Your task to perform on an android device: turn off data saver in the chrome app Image 0: 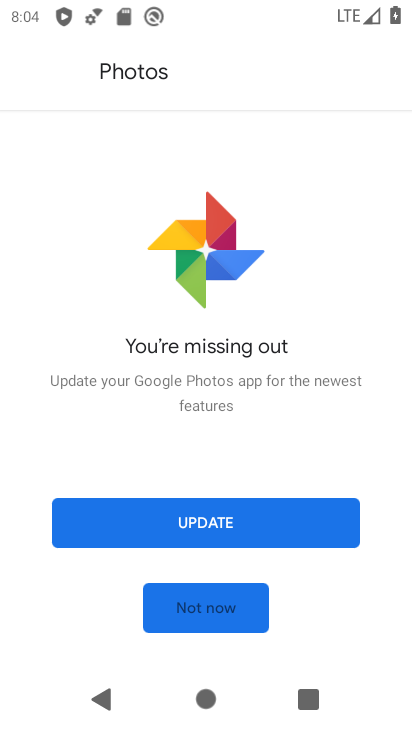
Step 0: press home button
Your task to perform on an android device: turn off data saver in the chrome app Image 1: 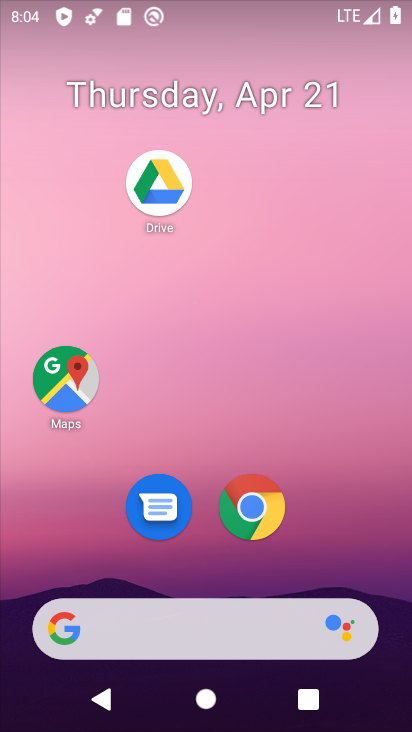
Step 1: drag from (356, 566) to (365, 142)
Your task to perform on an android device: turn off data saver in the chrome app Image 2: 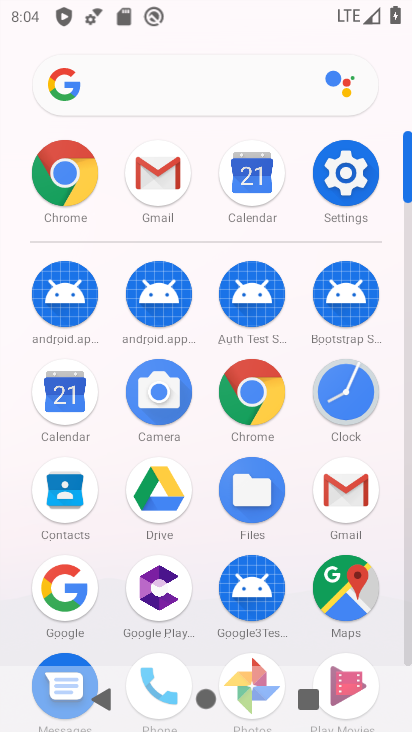
Step 2: click (264, 397)
Your task to perform on an android device: turn off data saver in the chrome app Image 3: 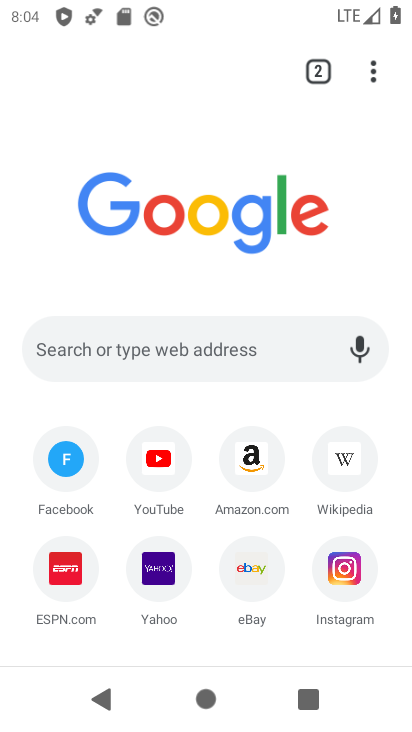
Step 3: click (373, 73)
Your task to perform on an android device: turn off data saver in the chrome app Image 4: 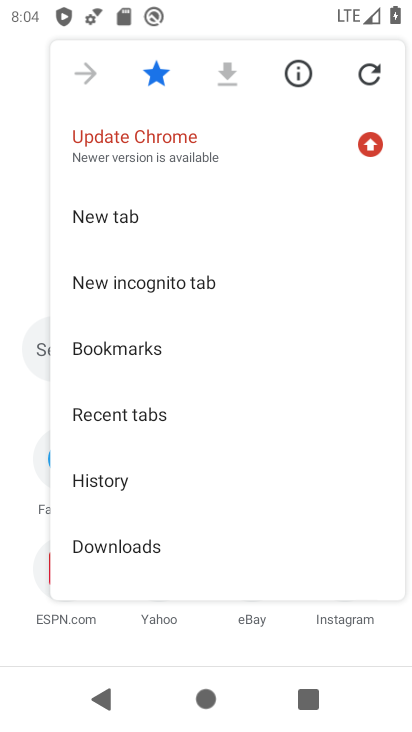
Step 4: drag from (302, 460) to (323, 277)
Your task to perform on an android device: turn off data saver in the chrome app Image 5: 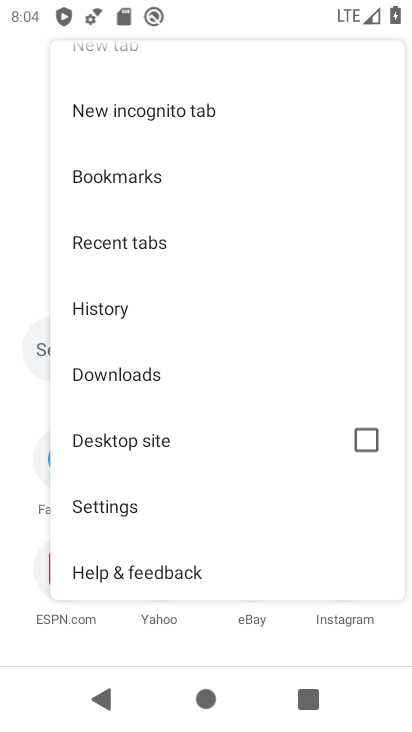
Step 5: drag from (275, 520) to (283, 309)
Your task to perform on an android device: turn off data saver in the chrome app Image 6: 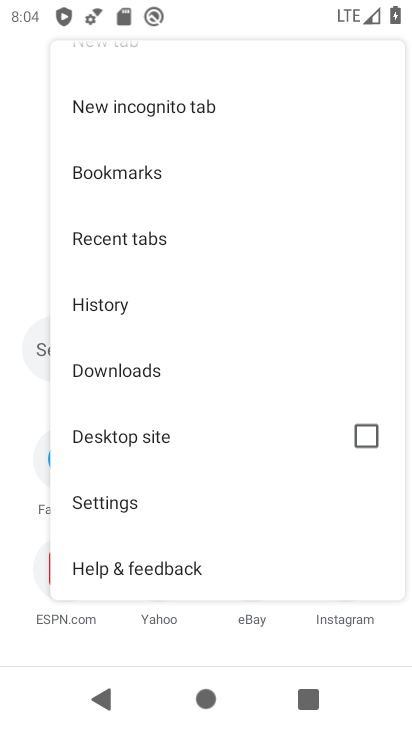
Step 6: drag from (282, 208) to (279, 355)
Your task to perform on an android device: turn off data saver in the chrome app Image 7: 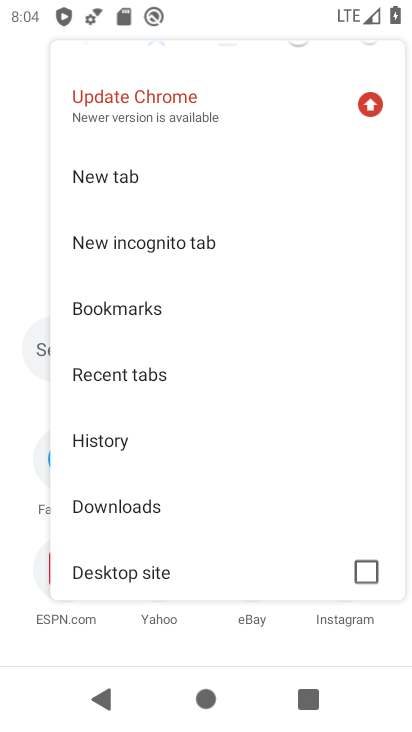
Step 7: drag from (279, 521) to (291, 309)
Your task to perform on an android device: turn off data saver in the chrome app Image 8: 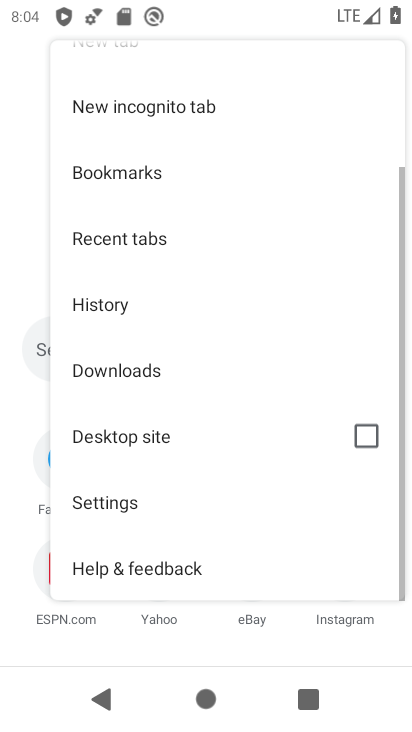
Step 8: click (143, 497)
Your task to perform on an android device: turn off data saver in the chrome app Image 9: 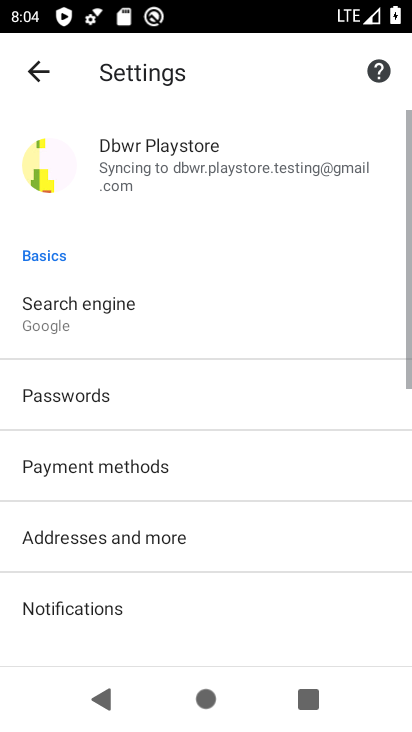
Step 9: drag from (304, 546) to (305, 444)
Your task to perform on an android device: turn off data saver in the chrome app Image 10: 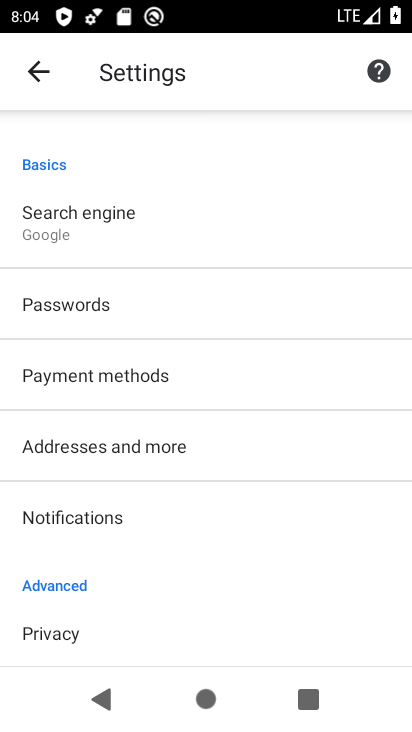
Step 10: drag from (309, 561) to (317, 451)
Your task to perform on an android device: turn off data saver in the chrome app Image 11: 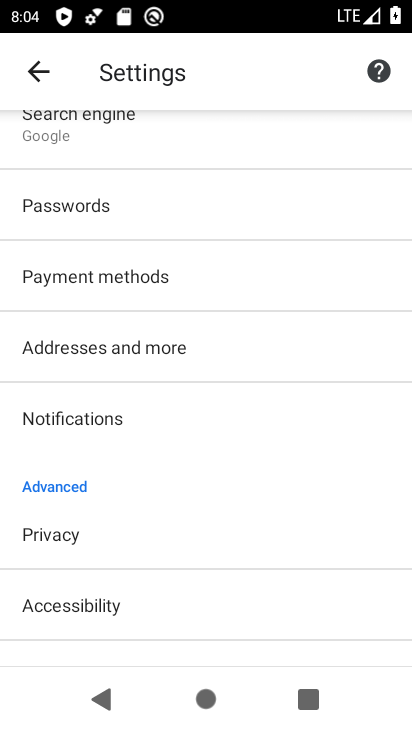
Step 11: drag from (316, 601) to (330, 492)
Your task to perform on an android device: turn off data saver in the chrome app Image 12: 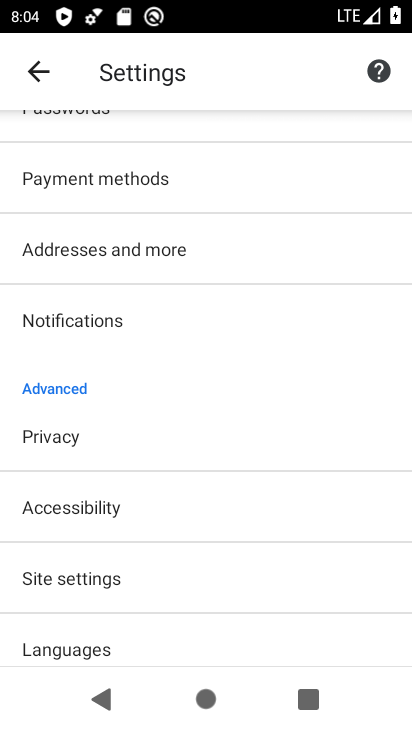
Step 12: drag from (313, 590) to (321, 496)
Your task to perform on an android device: turn off data saver in the chrome app Image 13: 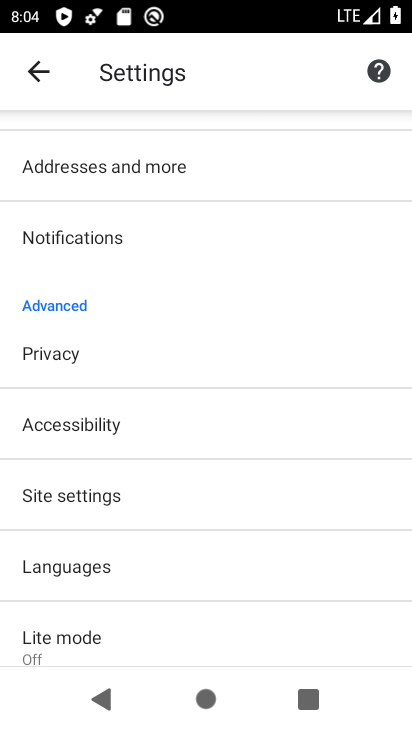
Step 13: drag from (319, 605) to (325, 516)
Your task to perform on an android device: turn off data saver in the chrome app Image 14: 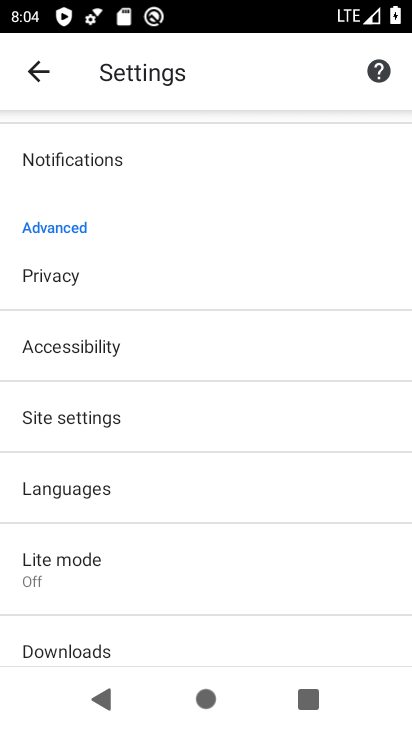
Step 14: drag from (320, 615) to (321, 518)
Your task to perform on an android device: turn off data saver in the chrome app Image 15: 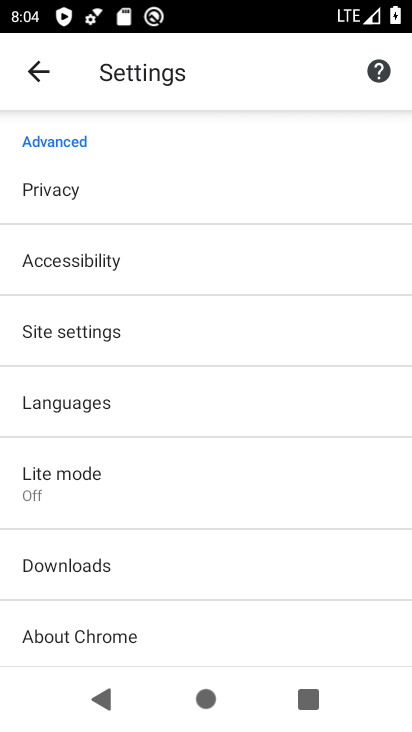
Step 15: click (304, 497)
Your task to perform on an android device: turn off data saver in the chrome app Image 16: 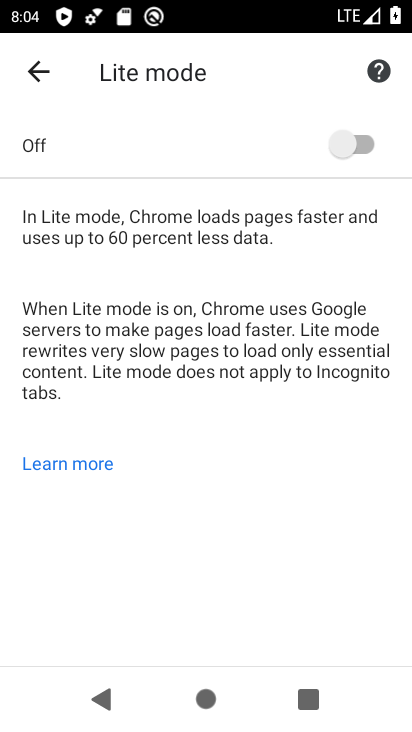
Step 16: task complete